Your task to perform on an android device: Open Maps and search for coffee Image 0: 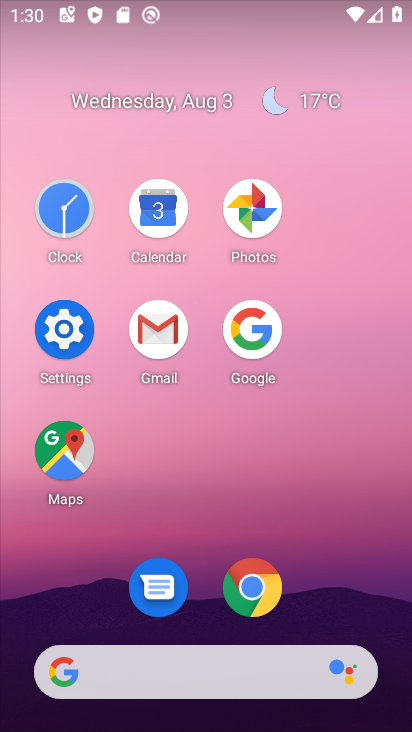
Step 0: click (42, 473)
Your task to perform on an android device: Open Maps and search for coffee Image 1: 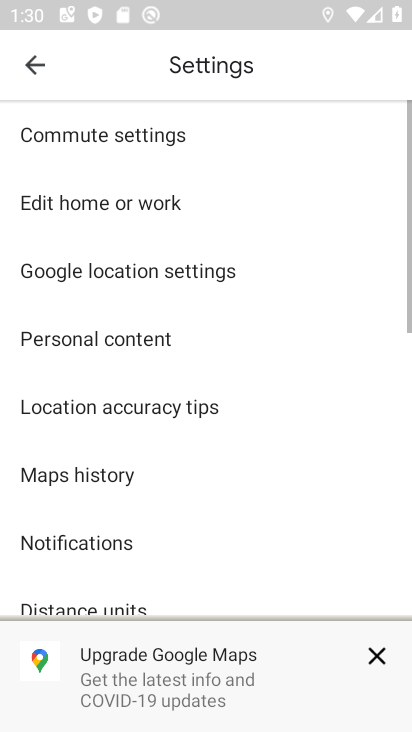
Step 1: click (54, 62)
Your task to perform on an android device: Open Maps and search for coffee Image 2: 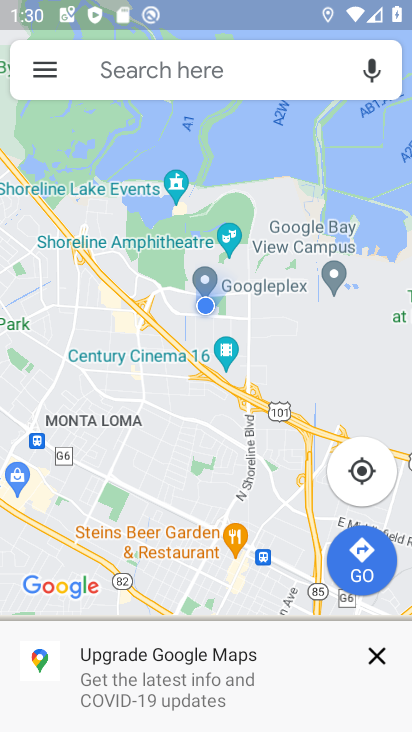
Step 2: click (175, 87)
Your task to perform on an android device: Open Maps and search for coffee Image 3: 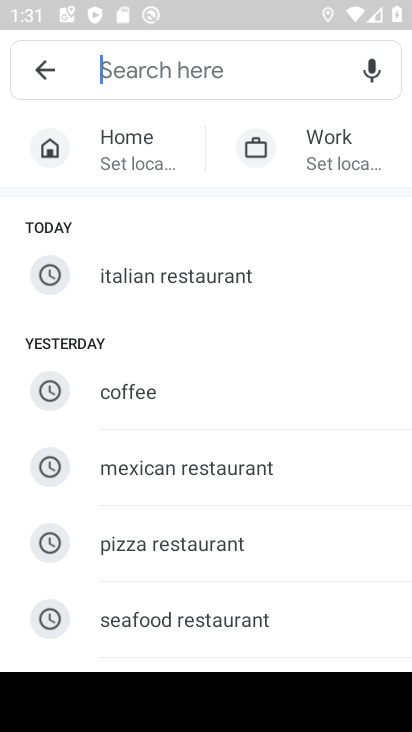
Step 3: click (195, 397)
Your task to perform on an android device: Open Maps and search for coffee Image 4: 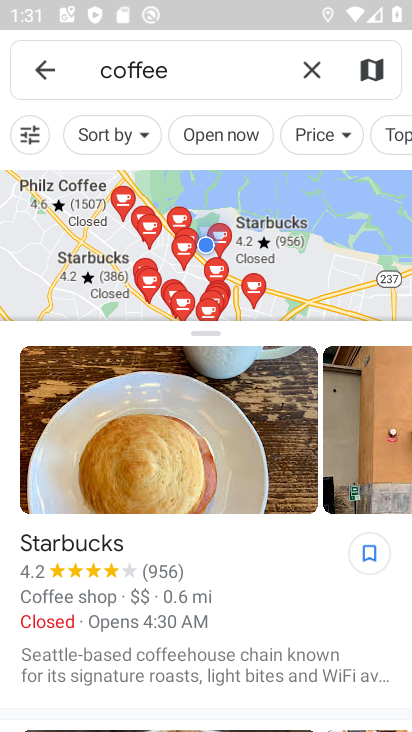
Step 4: task complete